Your task to perform on an android device: change text size in settings app Image 0: 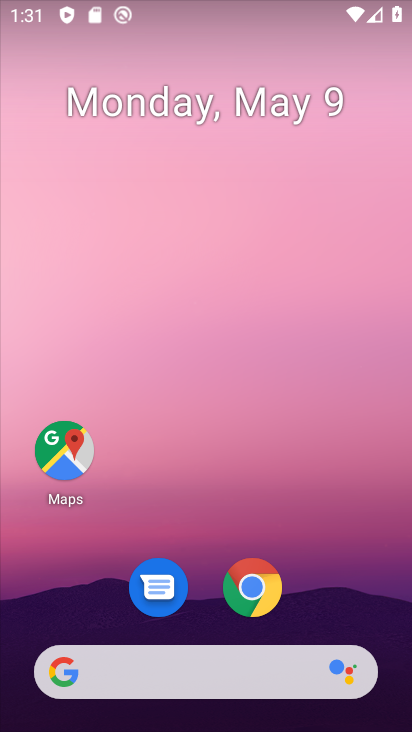
Step 0: drag from (209, 519) to (239, 61)
Your task to perform on an android device: change text size in settings app Image 1: 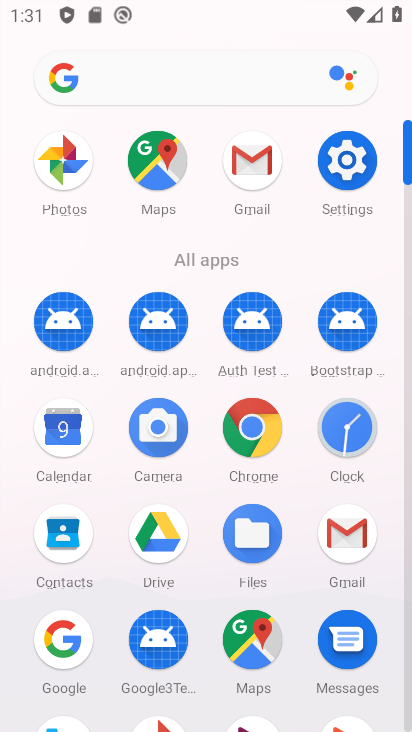
Step 1: click (362, 163)
Your task to perform on an android device: change text size in settings app Image 2: 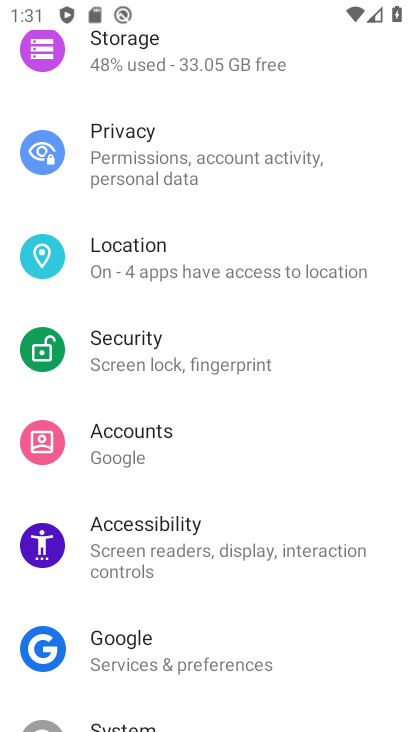
Step 2: drag from (237, 134) to (233, 655)
Your task to perform on an android device: change text size in settings app Image 3: 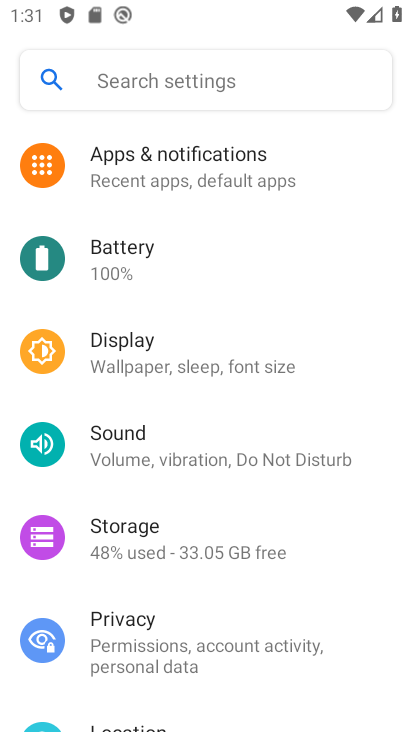
Step 3: drag from (223, 251) to (209, 567)
Your task to perform on an android device: change text size in settings app Image 4: 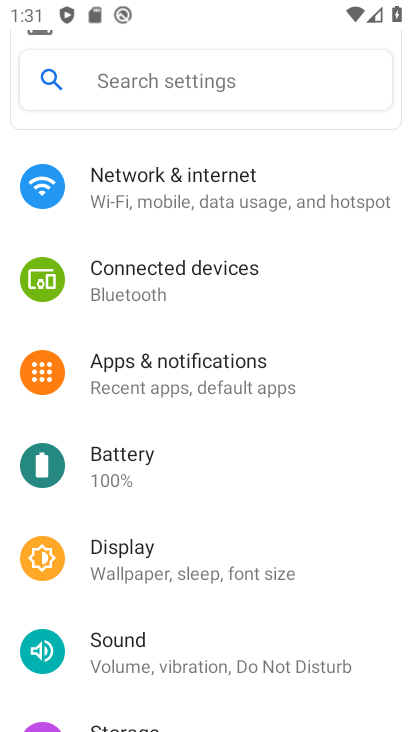
Step 4: click (192, 556)
Your task to perform on an android device: change text size in settings app Image 5: 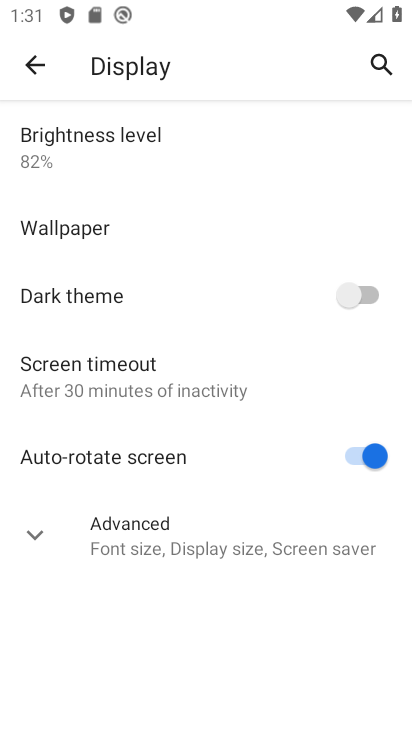
Step 5: click (32, 537)
Your task to perform on an android device: change text size in settings app Image 6: 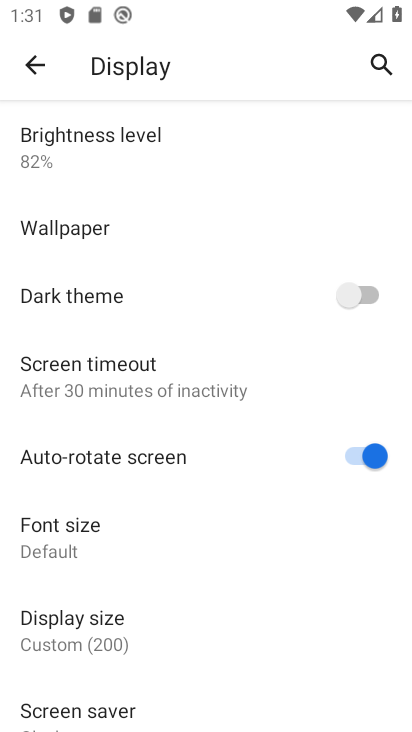
Step 6: click (70, 538)
Your task to perform on an android device: change text size in settings app Image 7: 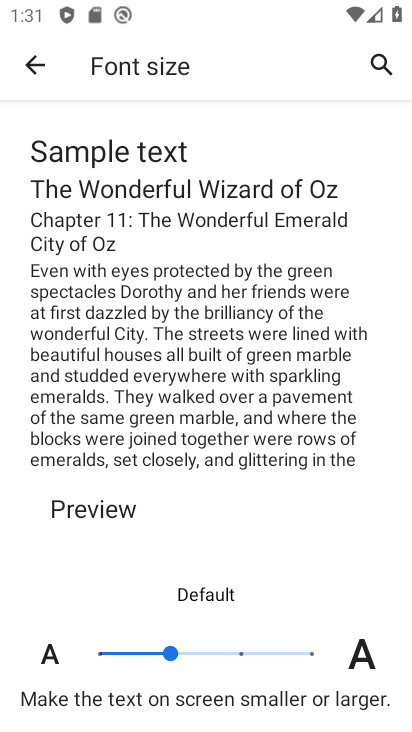
Step 7: click (99, 657)
Your task to perform on an android device: change text size in settings app Image 8: 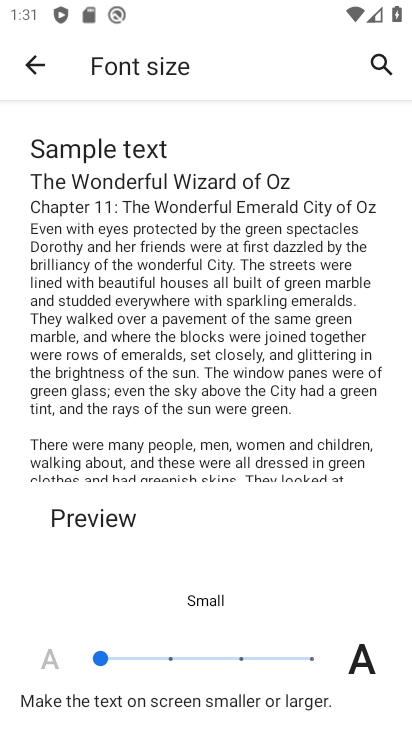
Step 8: task complete